Your task to perform on an android device: Open network settings Image 0: 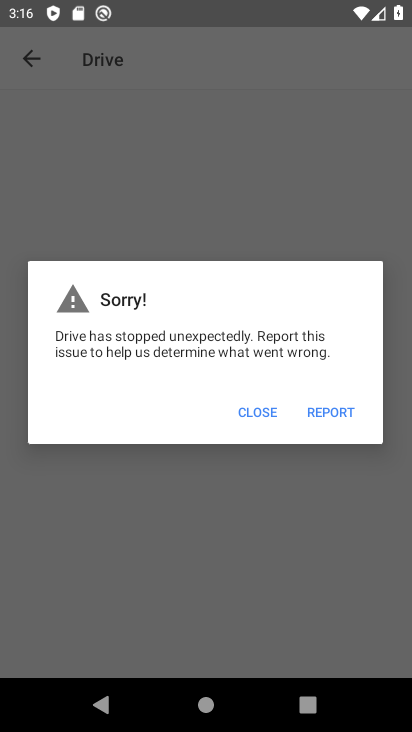
Step 0: click (274, 405)
Your task to perform on an android device: Open network settings Image 1: 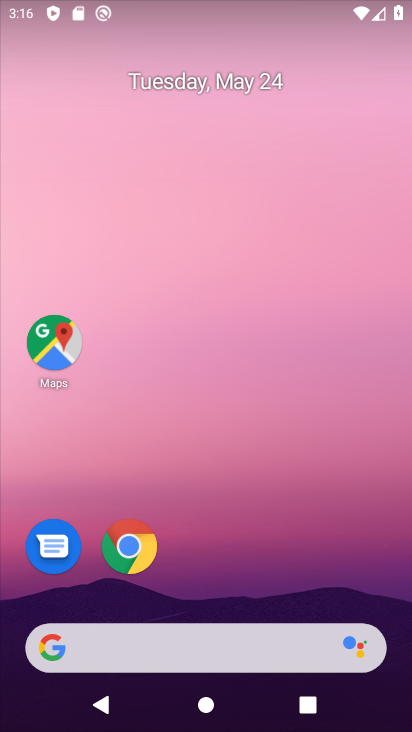
Step 1: drag from (252, 430) to (222, 274)
Your task to perform on an android device: Open network settings Image 2: 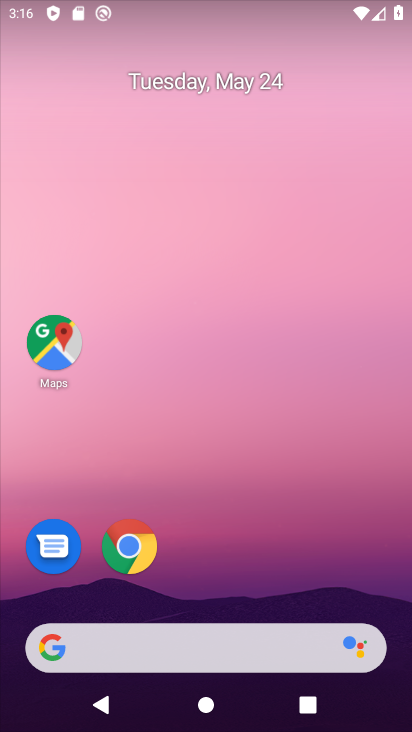
Step 2: drag from (270, 461) to (245, 211)
Your task to perform on an android device: Open network settings Image 3: 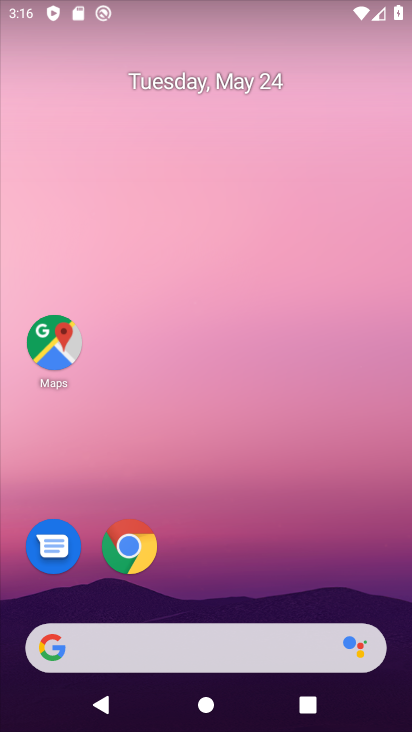
Step 3: click (239, 295)
Your task to perform on an android device: Open network settings Image 4: 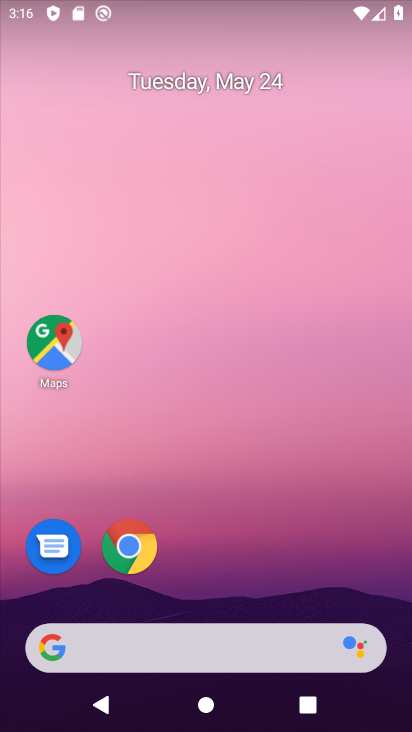
Step 4: drag from (239, 549) to (242, 290)
Your task to perform on an android device: Open network settings Image 5: 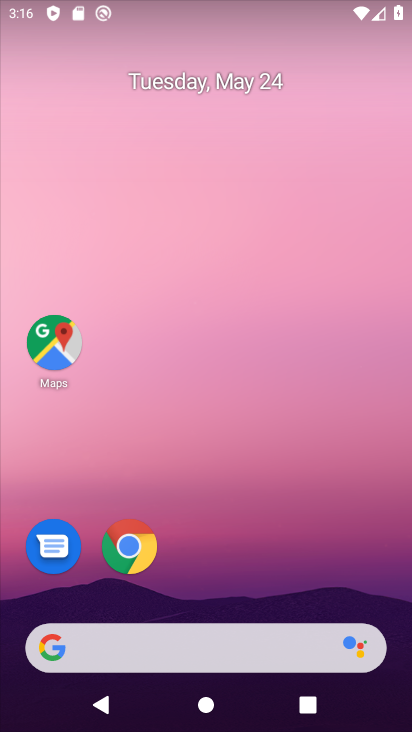
Step 5: click (191, 292)
Your task to perform on an android device: Open network settings Image 6: 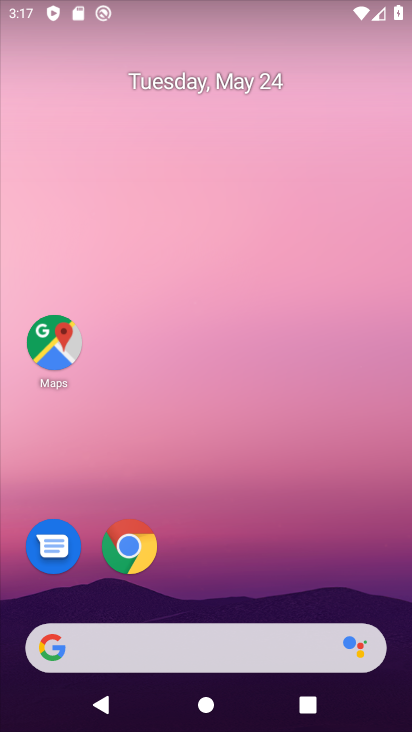
Step 6: drag from (254, 272) to (215, 154)
Your task to perform on an android device: Open network settings Image 7: 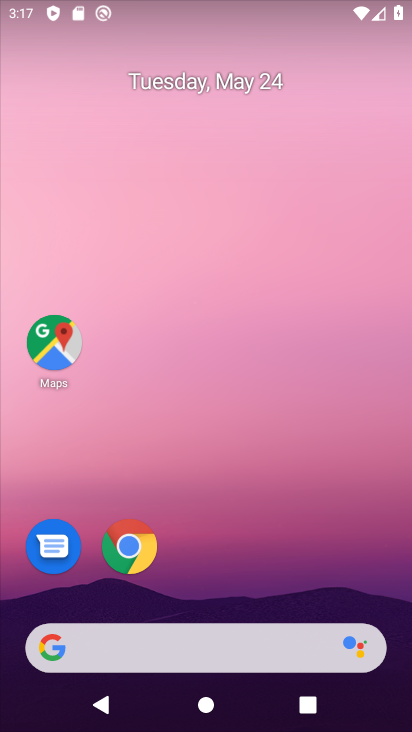
Step 7: drag from (178, 443) to (222, 245)
Your task to perform on an android device: Open network settings Image 8: 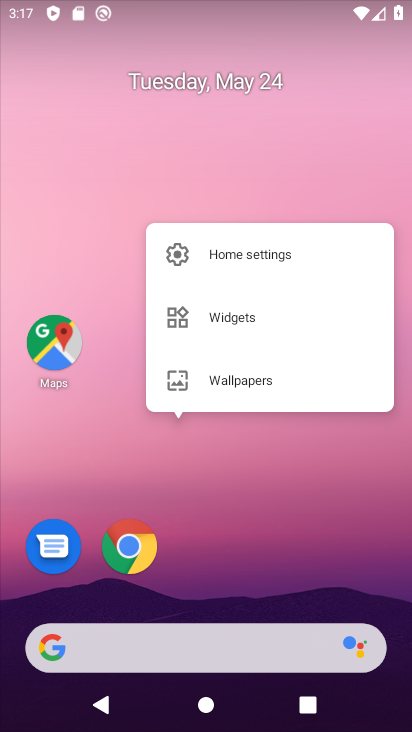
Step 8: drag from (172, 268) to (249, 117)
Your task to perform on an android device: Open network settings Image 9: 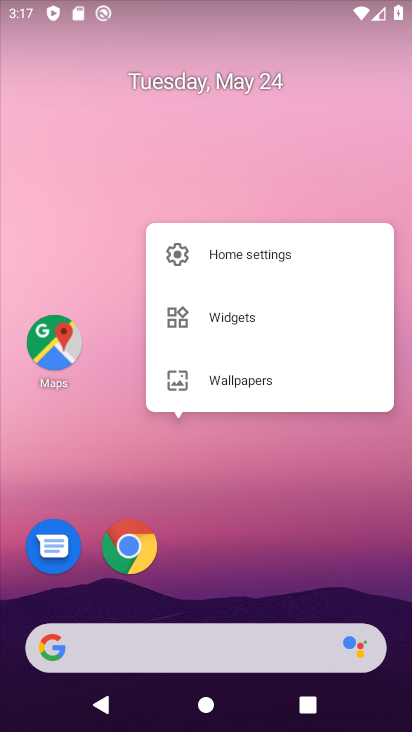
Step 9: drag from (244, 367) to (240, 331)
Your task to perform on an android device: Open network settings Image 10: 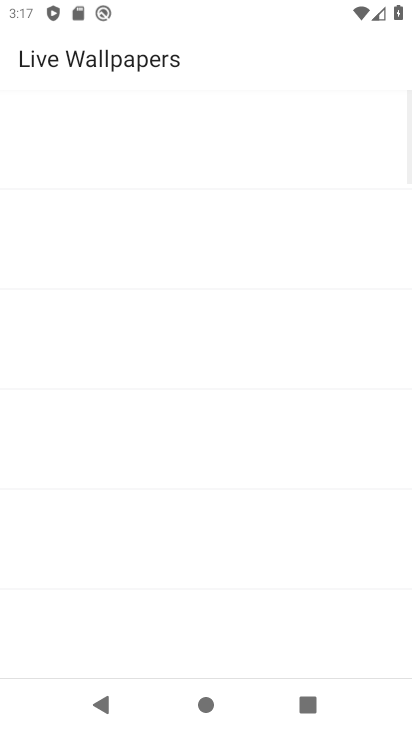
Step 10: drag from (286, 569) to (202, 10)
Your task to perform on an android device: Open network settings Image 11: 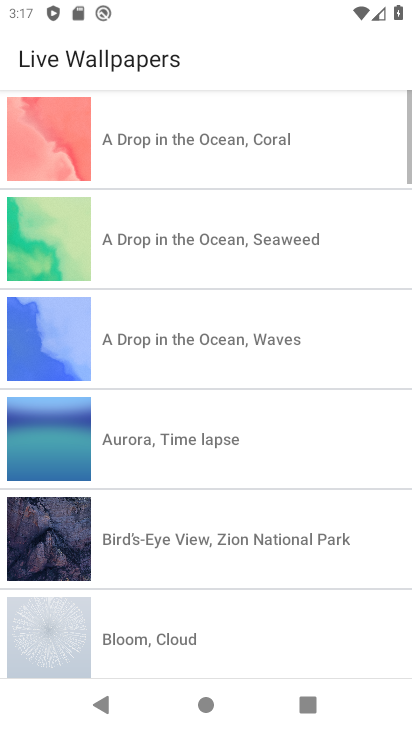
Step 11: drag from (265, 476) to (206, 6)
Your task to perform on an android device: Open network settings Image 12: 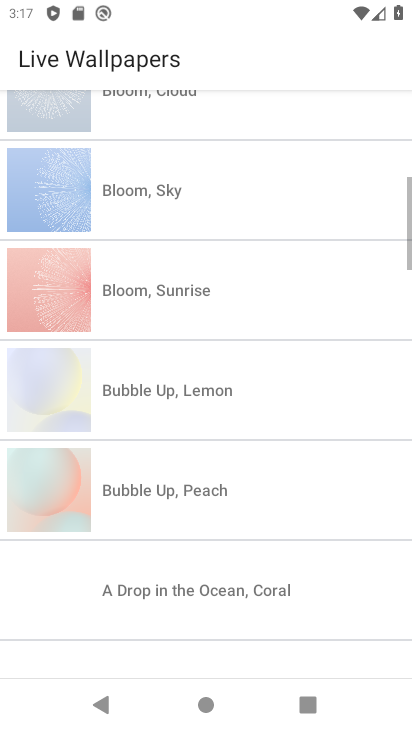
Step 12: drag from (283, 337) to (254, 14)
Your task to perform on an android device: Open network settings Image 13: 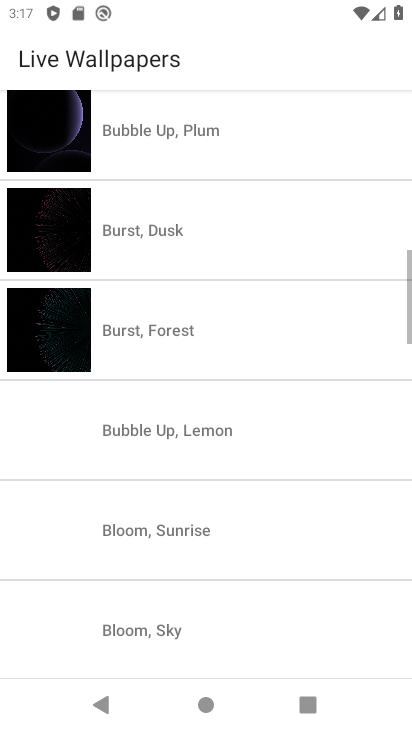
Step 13: drag from (216, 53) to (218, 193)
Your task to perform on an android device: Open network settings Image 14: 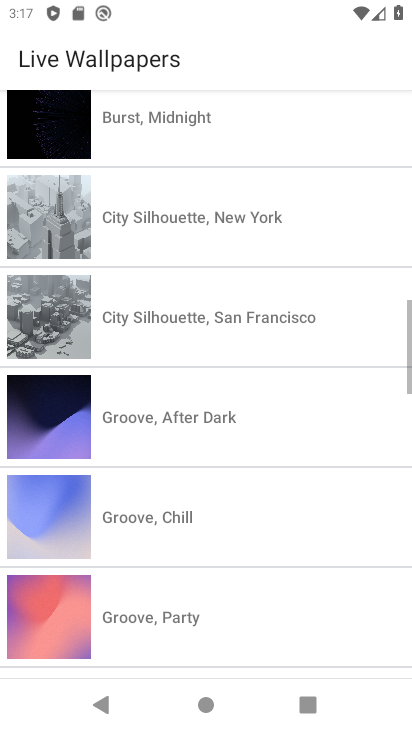
Step 14: click (121, 64)
Your task to perform on an android device: Open network settings Image 15: 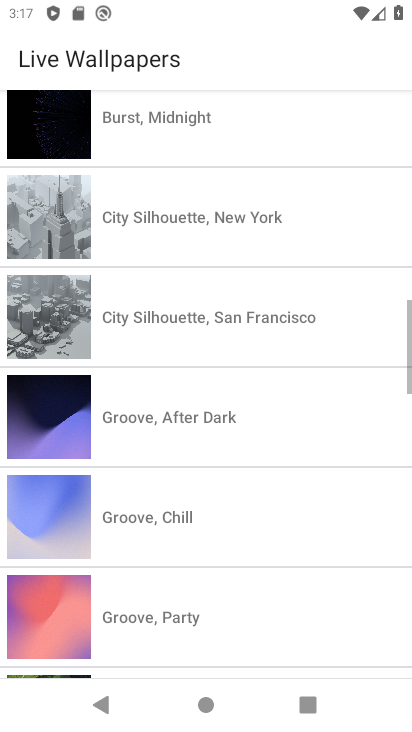
Step 15: click (115, 150)
Your task to perform on an android device: Open network settings Image 16: 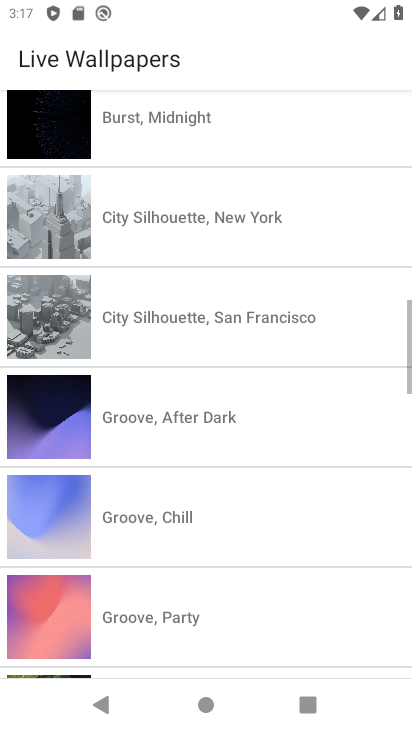
Step 16: drag from (220, 544) to (209, 138)
Your task to perform on an android device: Open network settings Image 17: 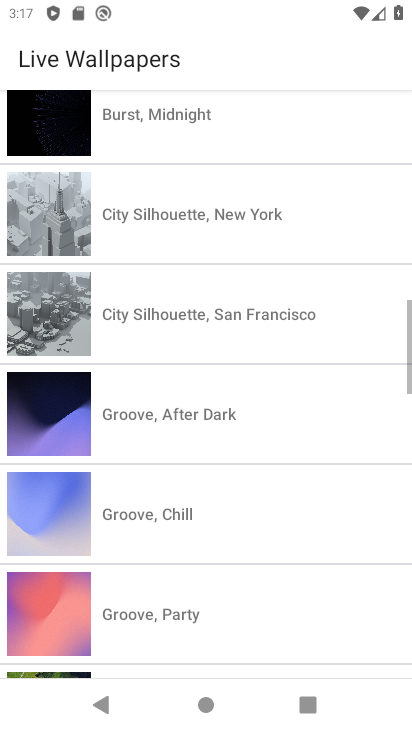
Step 17: drag from (269, 369) to (53, 51)
Your task to perform on an android device: Open network settings Image 18: 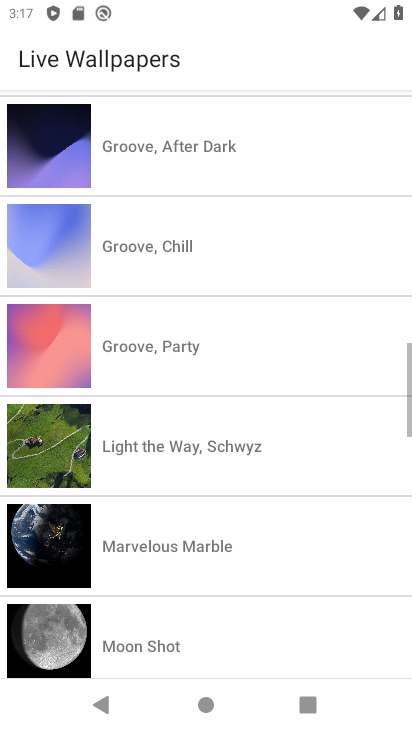
Step 18: drag from (146, 392) to (61, 16)
Your task to perform on an android device: Open network settings Image 19: 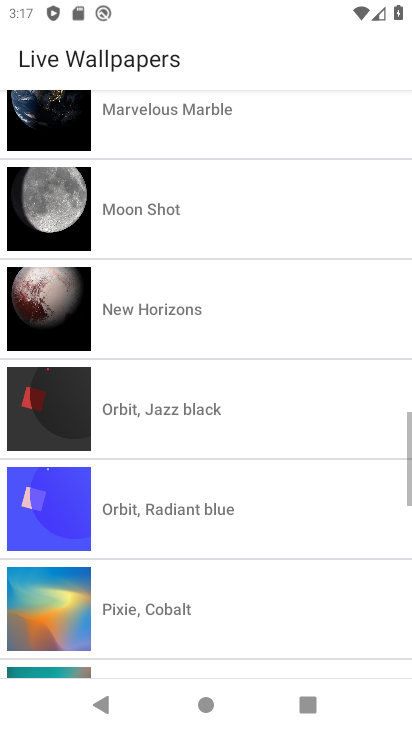
Step 19: drag from (185, 305) to (176, 45)
Your task to perform on an android device: Open network settings Image 20: 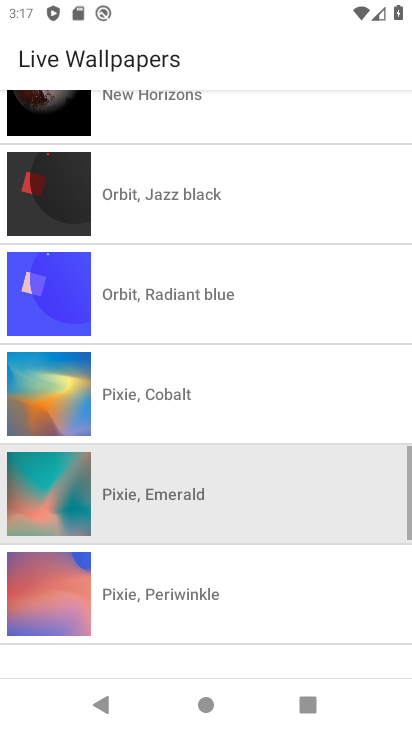
Step 20: drag from (300, 442) to (179, 259)
Your task to perform on an android device: Open network settings Image 21: 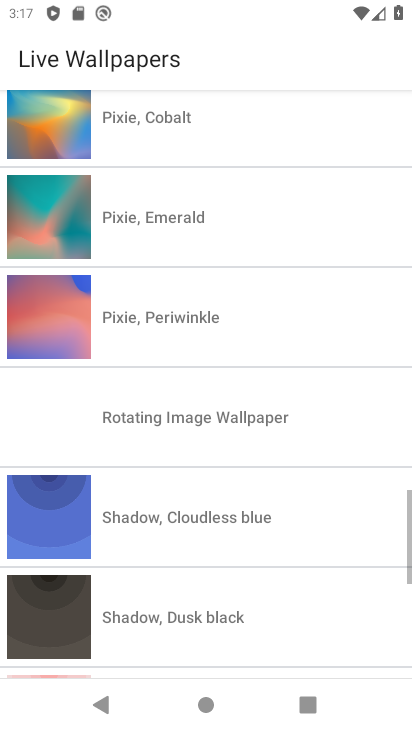
Step 21: drag from (259, 460) to (103, 198)
Your task to perform on an android device: Open network settings Image 22: 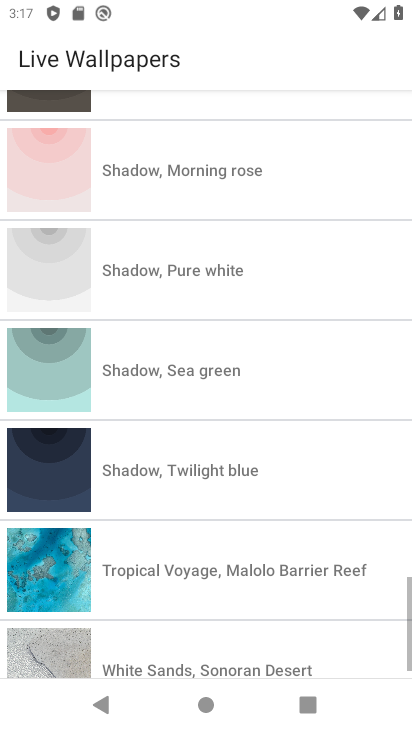
Step 22: drag from (284, 481) to (320, 458)
Your task to perform on an android device: Open network settings Image 23: 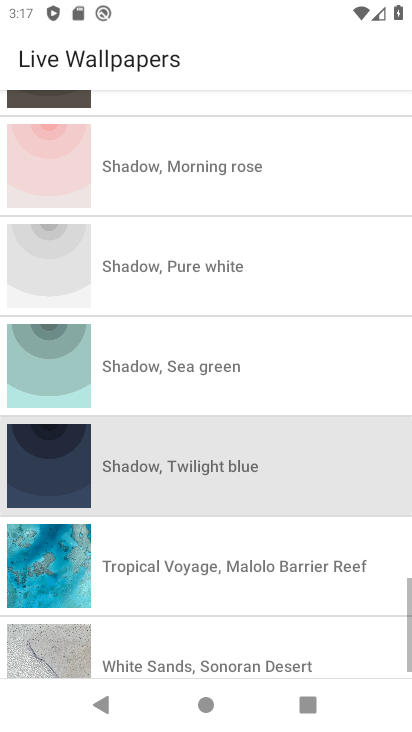
Step 23: press back button
Your task to perform on an android device: Open network settings Image 24: 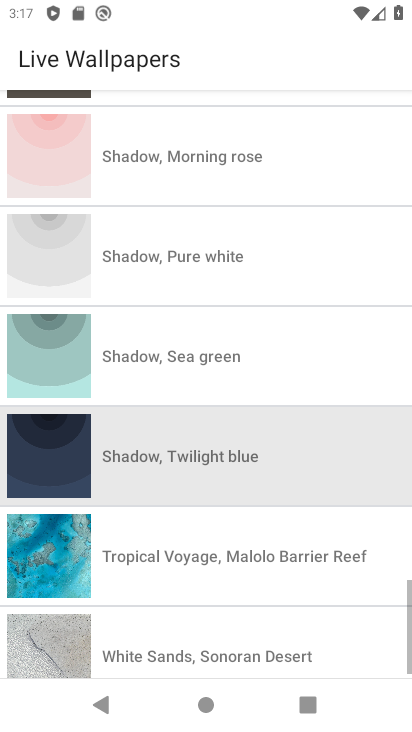
Step 24: press home button
Your task to perform on an android device: Open network settings Image 25: 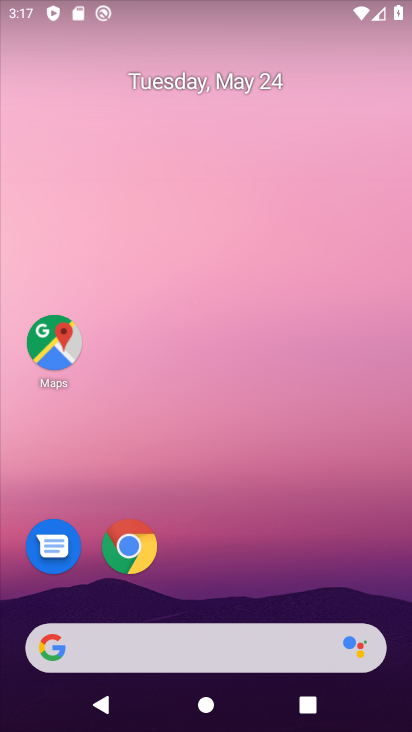
Step 25: drag from (290, 665) to (290, 127)
Your task to perform on an android device: Open network settings Image 26: 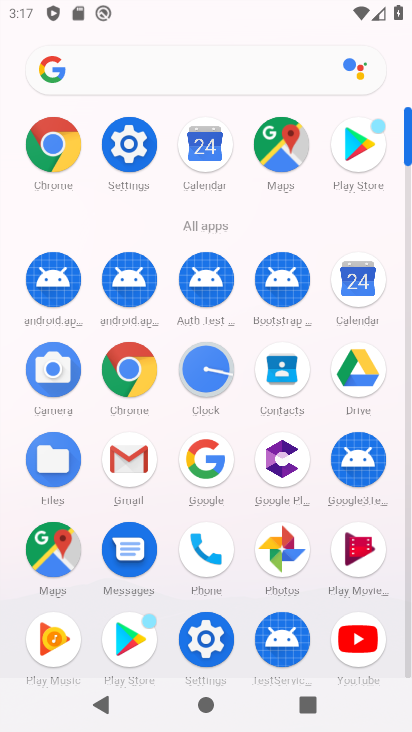
Step 26: click (125, 139)
Your task to perform on an android device: Open network settings Image 27: 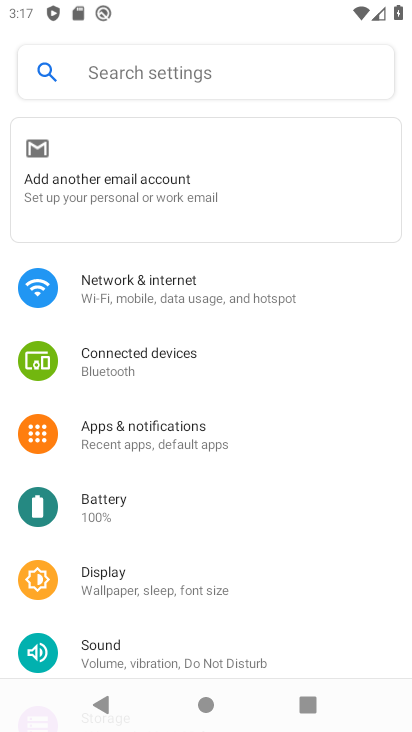
Step 27: click (190, 287)
Your task to perform on an android device: Open network settings Image 28: 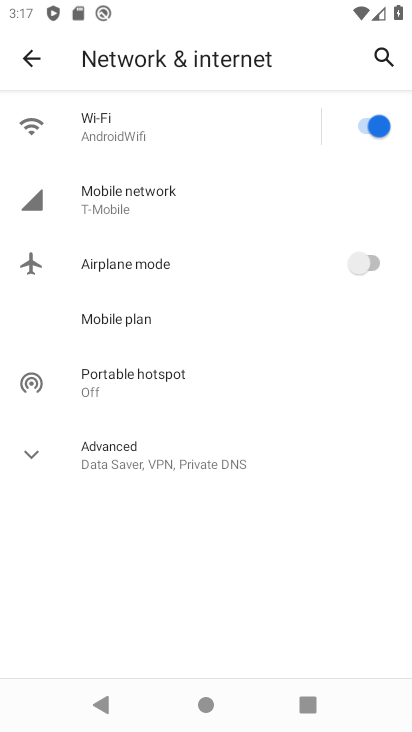
Step 28: task complete